Your task to perform on an android device: What's the weather today? Image 0: 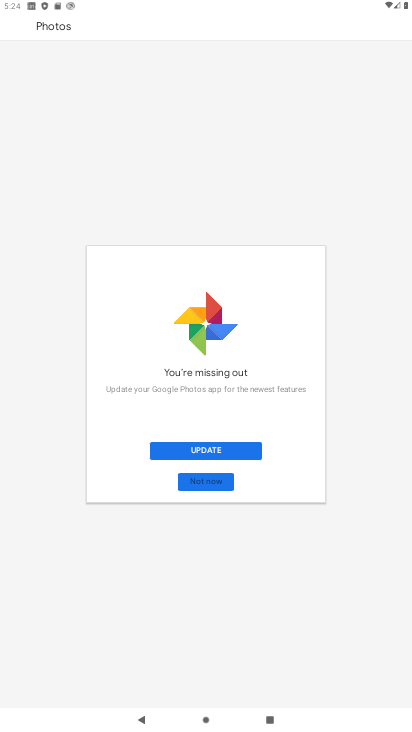
Step 0: press home button
Your task to perform on an android device: What's the weather today? Image 1: 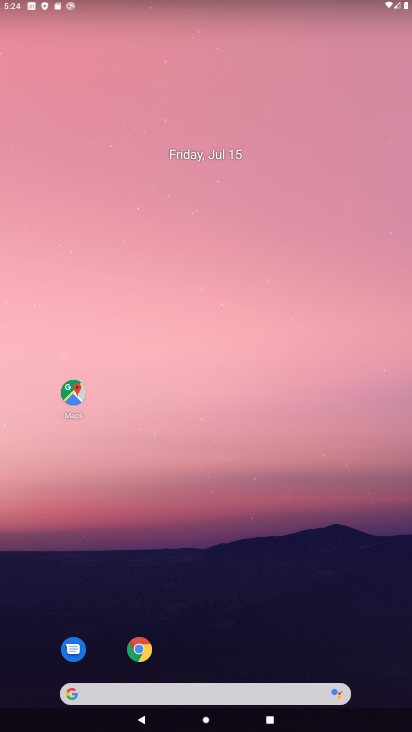
Step 1: drag from (191, 689) to (344, 184)
Your task to perform on an android device: What's the weather today? Image 2: 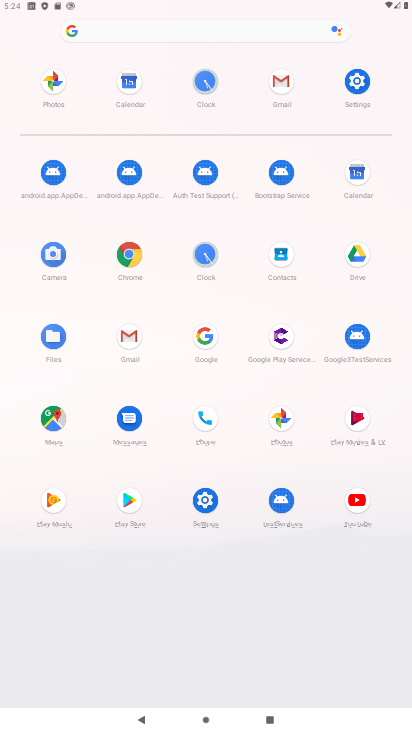
Step 2: click (203, 336)
Your task to perform on an android device: What's the weather today? Image 3: 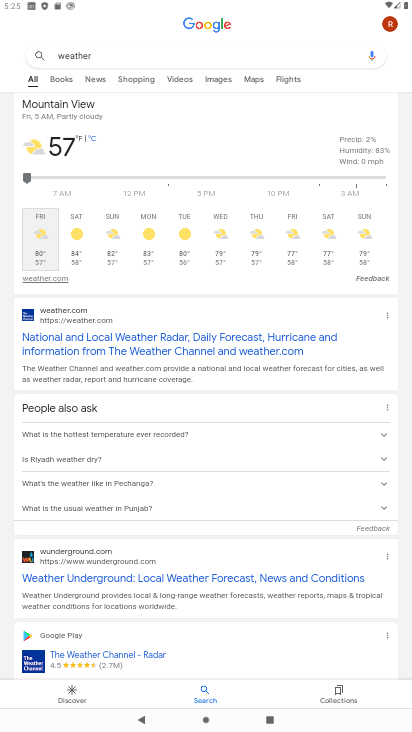
Step 3: task complete